Your task to perform on an android device: allow cookies in the chrome app Image 0: 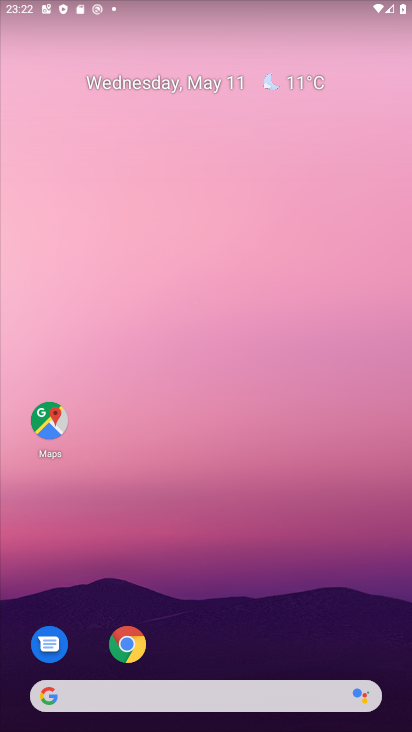
Step 0: click (129, 644)
Your task to perform on an android device: allow cookies in the chrome app Image 1: 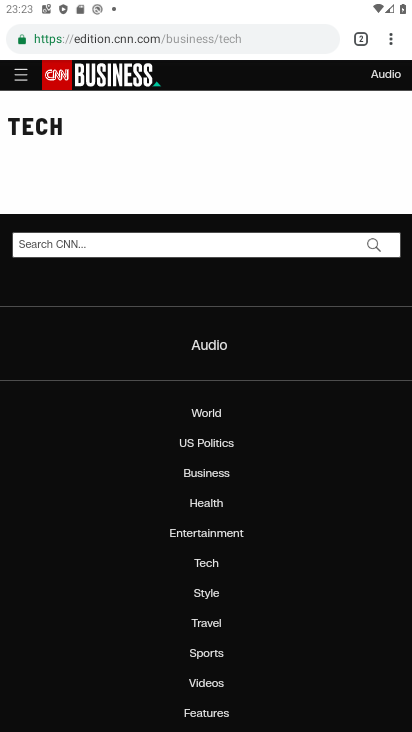
Step 1: click (389, 39)
Your task to perform on an android device: allow cookies in the chrome app Image 2: 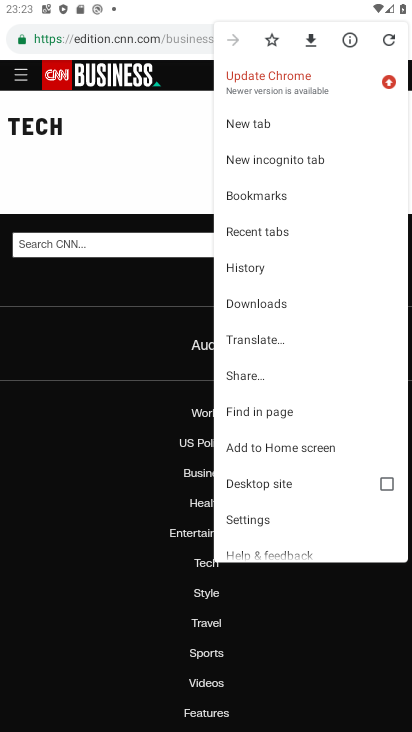
Step 2: click (274, 520)
Your task to perform on an android device: allow cookies in the chrome app Image 3: 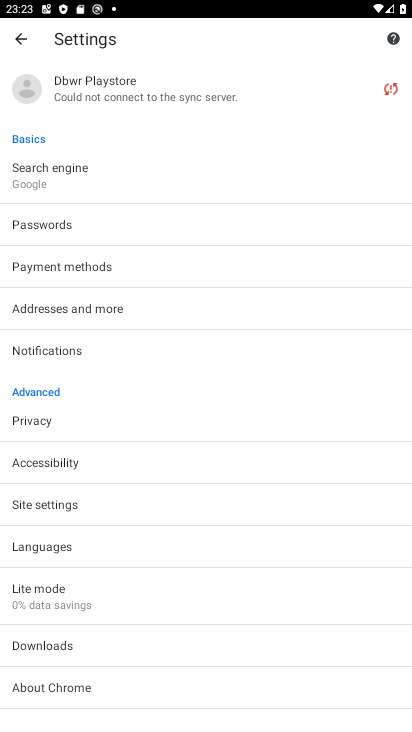
Step 3: click (85, 506)
Your task to perform on an android device: allow cookies in the chrome app Image 4: 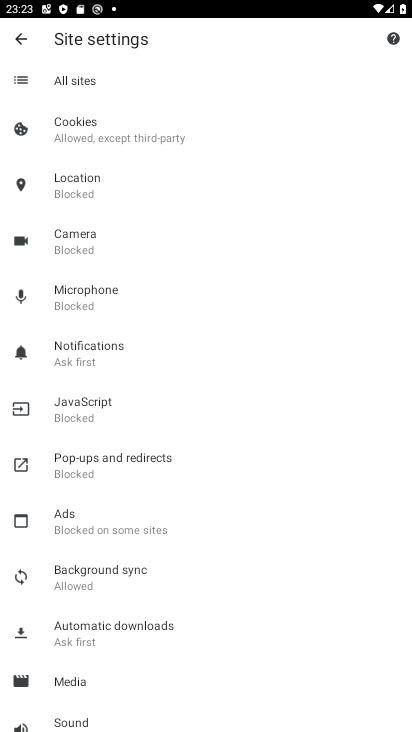
Step 4: click (102, 127)
Your task to perform on an android device: allow cookies in the chrome app Image 5: 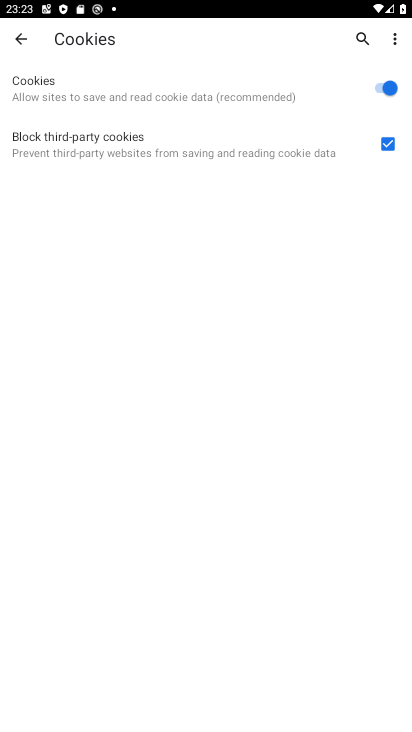
Step 5: task complete